Your task to perform on an android device: toggle data saver in the chrome app Image 0: 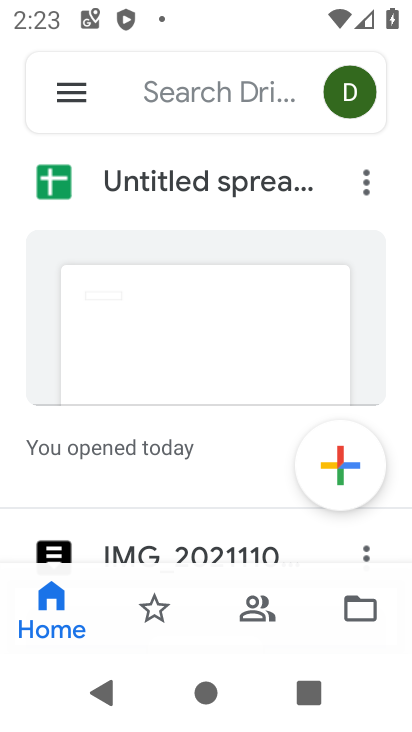
Step 0: press home button
Your task to perform on an android device: toggle data saver in the chrome app Image 1: 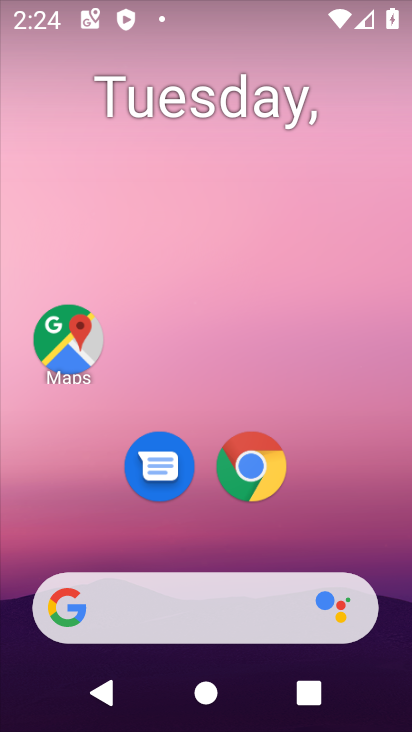
Step 1: click (270, 458)
Your task to perform on an android device: toggle data saver in the chrome app Image 2: 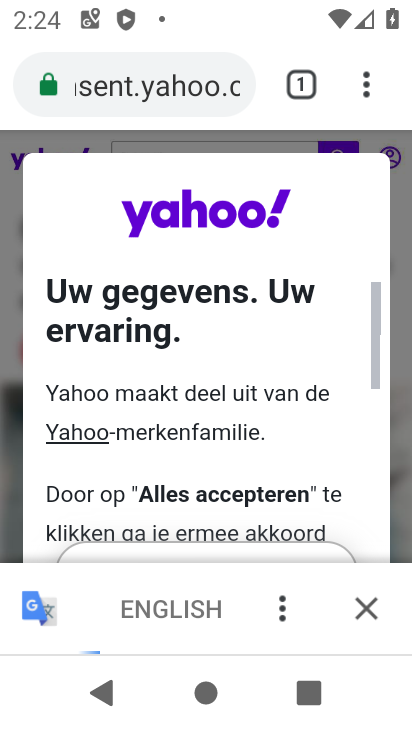
Step 2: click (354, 79)
Your task to perform on an android device: toggle data saver in the chrome app Image 3: 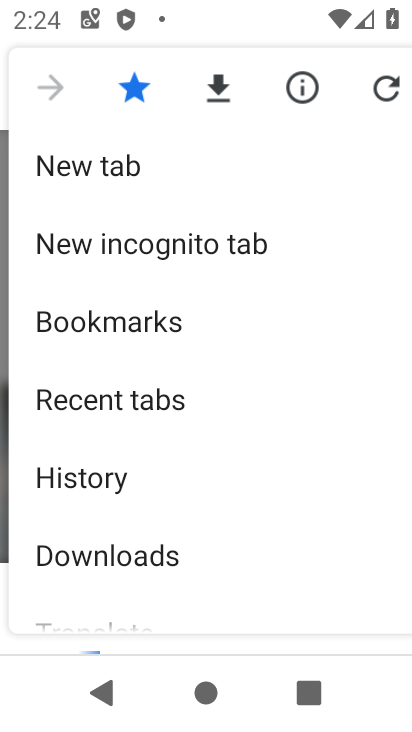
Step 3: drag from (188, 558) to (144, 280)
Your task to perform on an android device: toggle data saver in the chrome app Image 4: 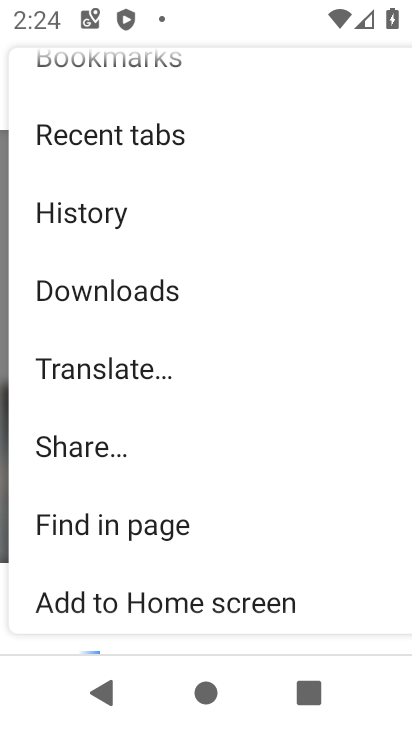
Step 4: drag from (187, 589) to (141, 330)
Your task to perform on an android device: toggle data saver in the chrome app Image 5: 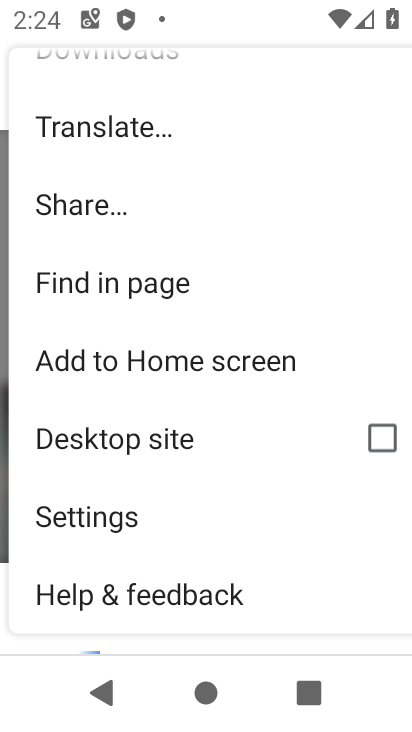
Step 5: click (166, 507)
Your task to perform on an android device: toggle data saver in the chrome app Image 6: 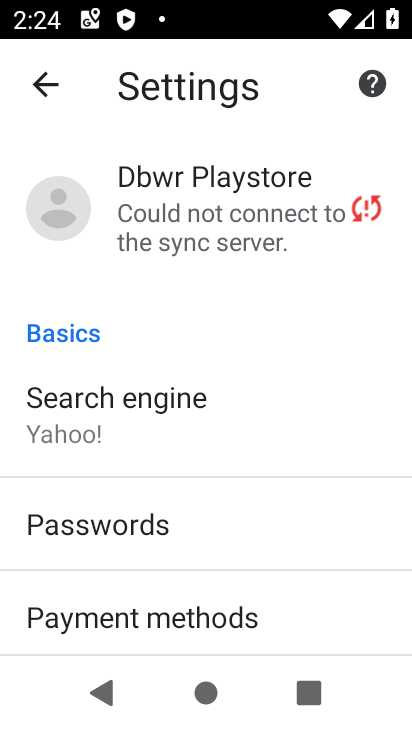
Step 6: drag from (369, 624) to (322, 230)
Your task to perform on an android device: toggle data saver in the chrome app Image 7: 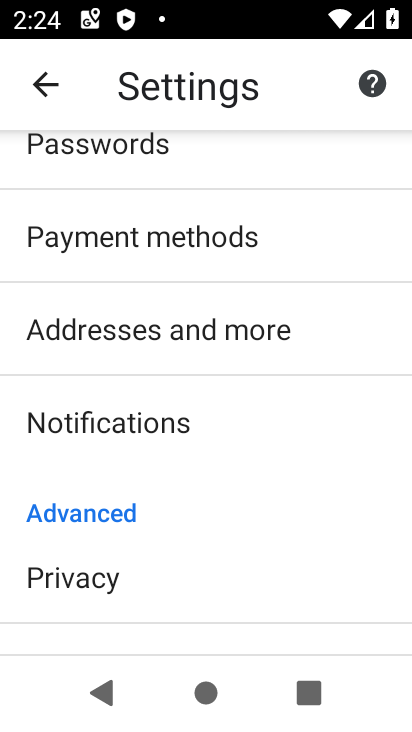
Step 7: drag from (263, 498) to (214, 131)
Your task to perform on an android device: toggle data saver in the chrome app Image 8: 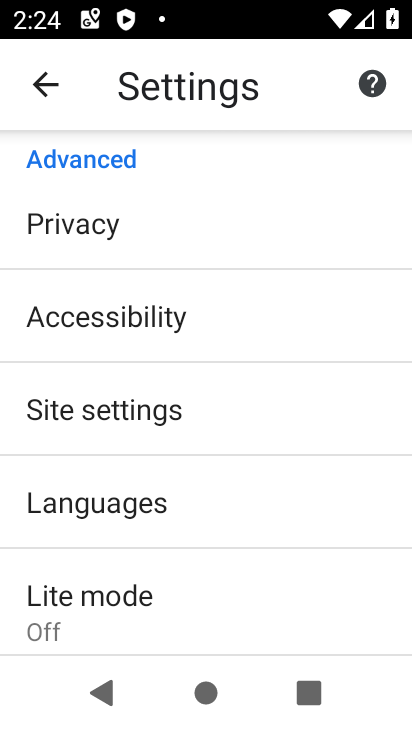
Step 8: click (205, 502)
Your task to perform on an android device: toggle data saver in the chrome app Image 9: 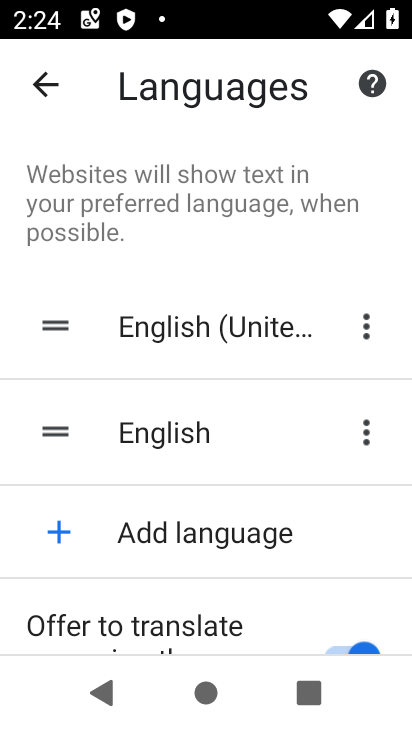
Step 9: click (354, 634)
Your task to perform on an android device: toggle data saver in the chrome app Image 10: 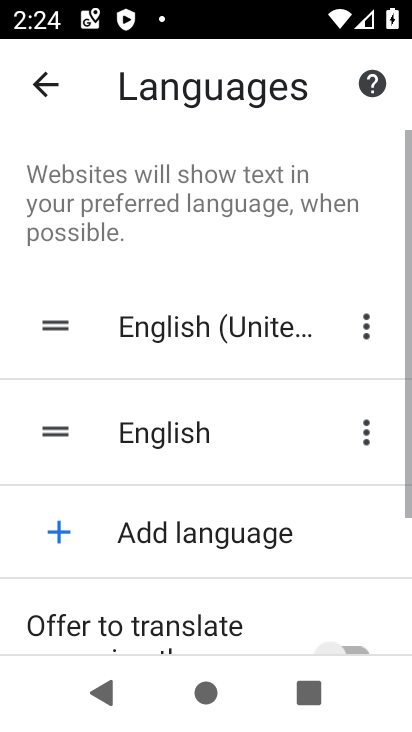
Step 10: task complete